Your task to perform on an android device: toggle improve location accuracy Image 0: 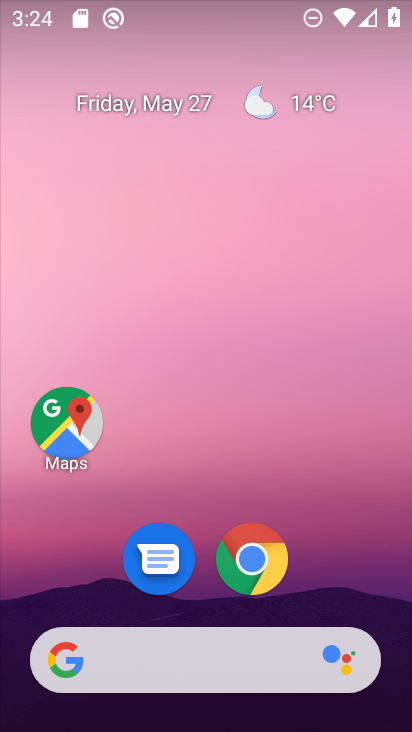
Step 0: drag from (351, 582) to (317, 149)
Your task to perform on an android device: toggle improve location accuracy Image 1: 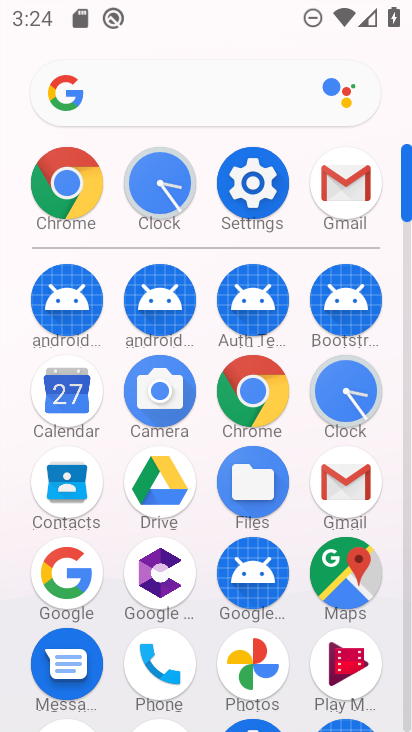
Step 1: click (241, 198)
Your task to perform on an android device: toggle improve location accuracy Image 2: 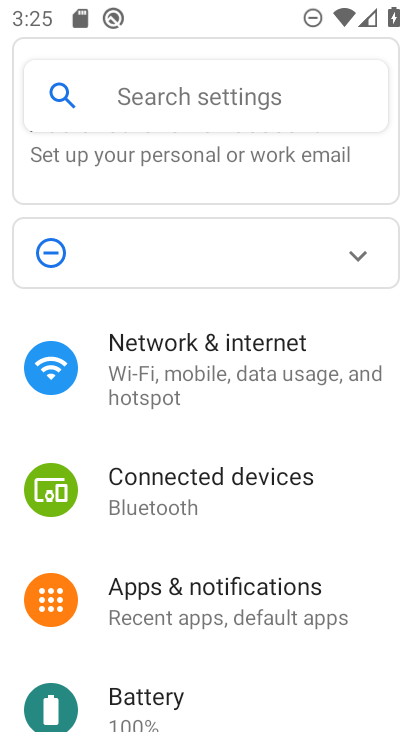
Step 2: drag from (205, 549) to (199, 200)
Your task to perform on an android device: toggle improve location accuracy Image 3: 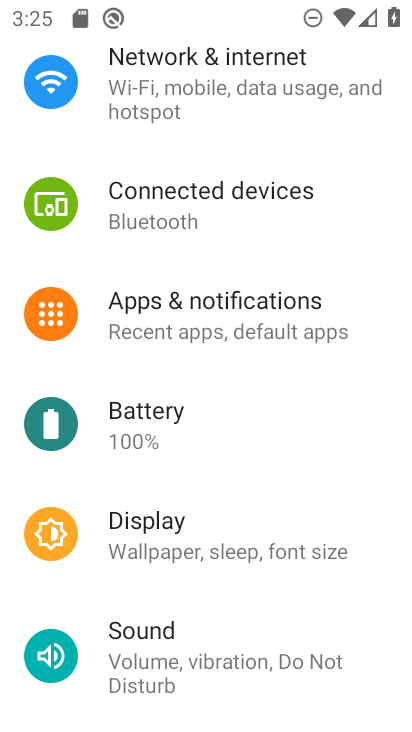
Step 3: drag from (249, 637) to (273, 180)
Your task to perform on an android device: toggle improve location accuracy Image 4: 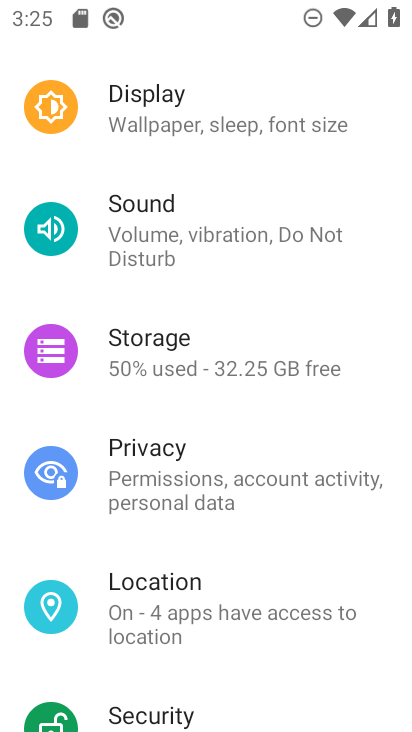
Step 4: click (166, 608)
Your task to perform on an android device: toggle improve location accuracy Image 5: 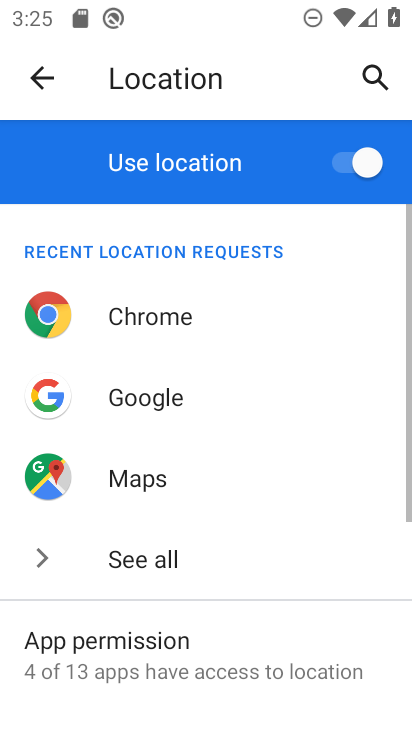
Step 5: drag from (289, 639) to (268, 298)
Your task to perform on an android device: toggle improve location accuracy Image 6: 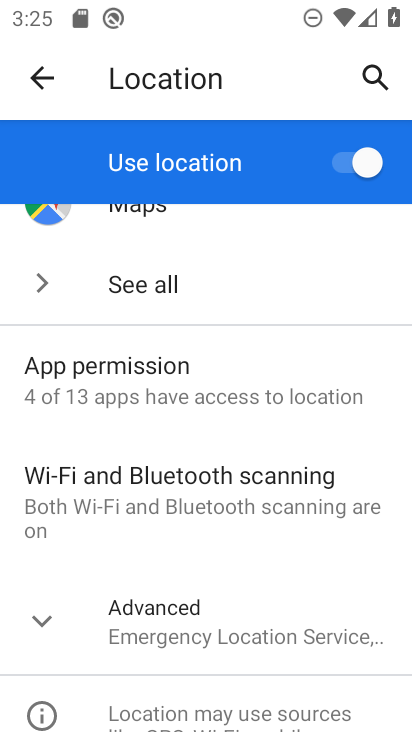
Step 6: drag from (256, 574) to (304, 258)
Your task to perform on an android device: toggle improve location accuracy Image 7: 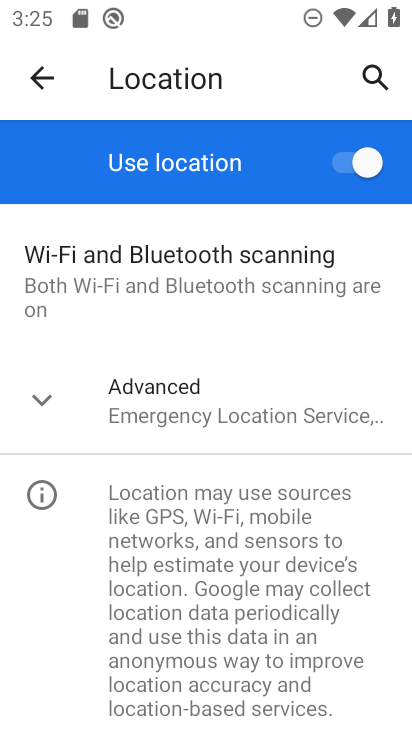
Step 7: click (180, 421)
Your task to perform on an android device: toggle improve location accuracy Image 8: 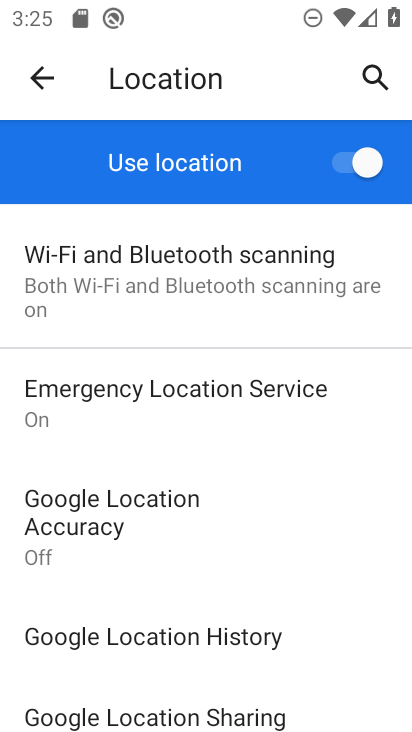
Step 8: drag from (316, 641) to (278, 340)
Your task to perform on an android device: toggle improve location accuracy Image 9: 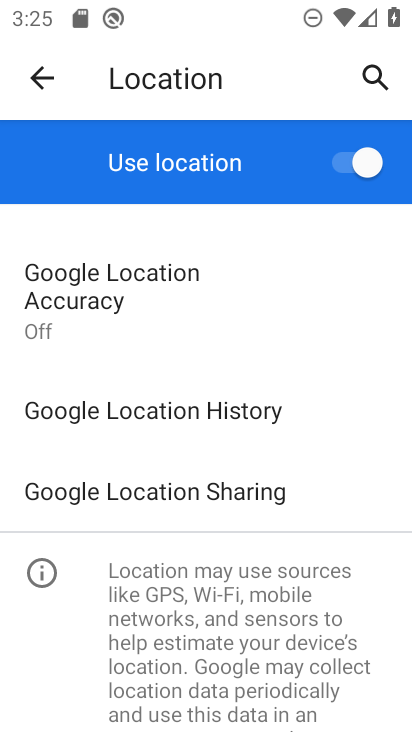
Step 9: click (146, 301)
Your task to perform on an android device: toggle improve location accuracy Image 10: 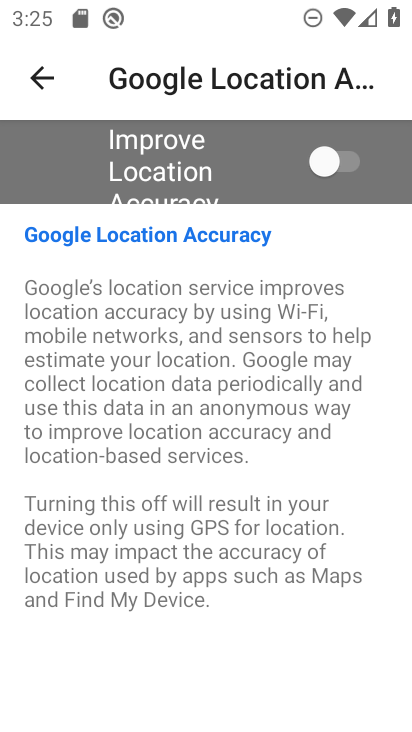
Step 10: click (331, 165)
Your task to perform on an android device: toggle improve location accuracy Image 11: 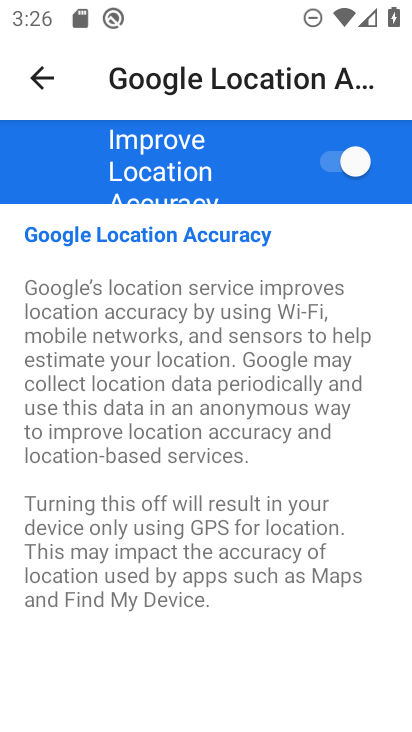
Step 11: task complete